Your task to perform on an android device: turn on wifi Image 0: 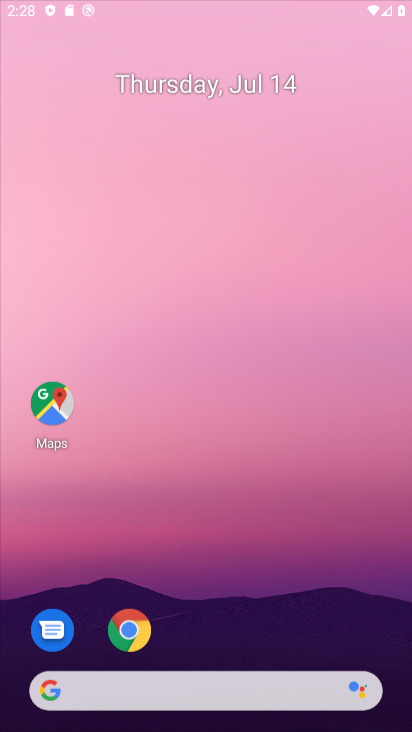
Step 0: press home button
Your task to perform on an android device: turn on wifi Image 1: 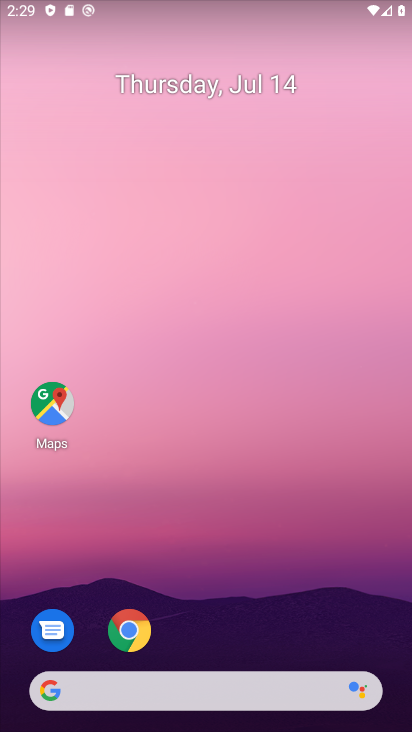
Step 1: task complete